Your task to perform on an android device: change the clock display to analog Image 0: 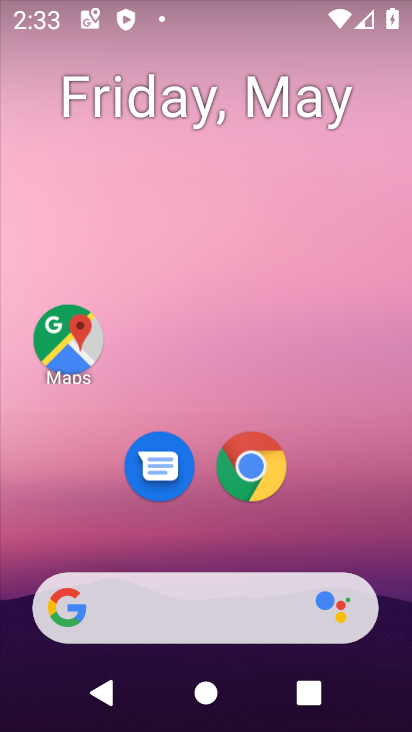
Step 0: drag from (236, 512) to (338, 31)
Your task to perform on an android device: change the clock display to analog Image 1: 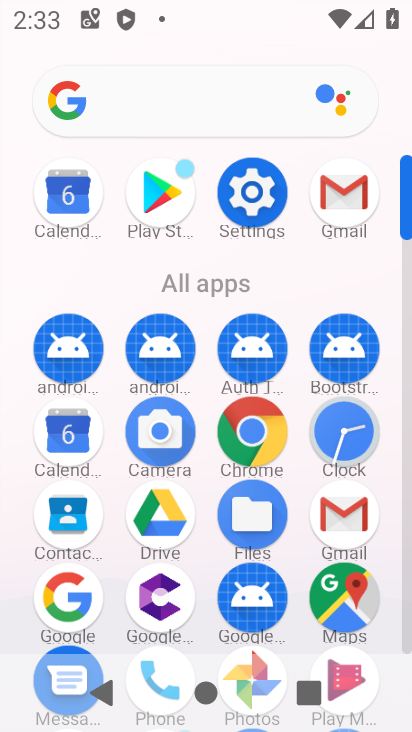
Step 1: click (346, 428)
Your task to perform on an android device: change the clock display to analog Image 2: 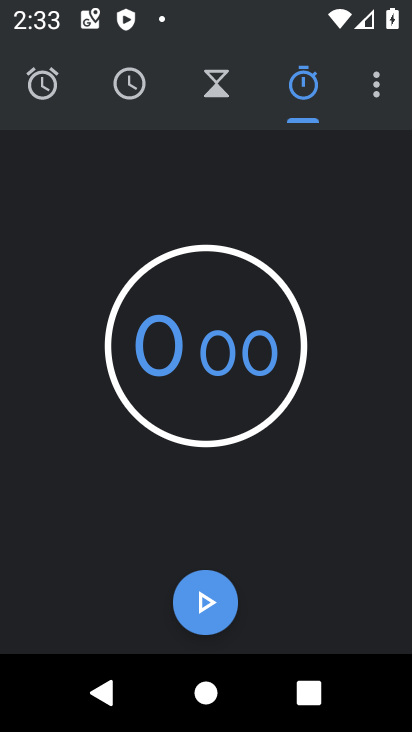
Step 2: click (370, 90)
Your task to perform on an android device: change the clock display to analog Image 3: 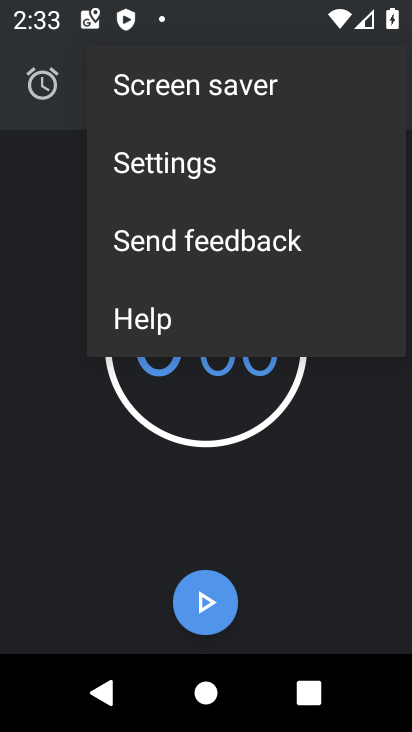
Step 3: click (158, 156)
Your task to perform on an android device: change the clock display to analog Image 4: 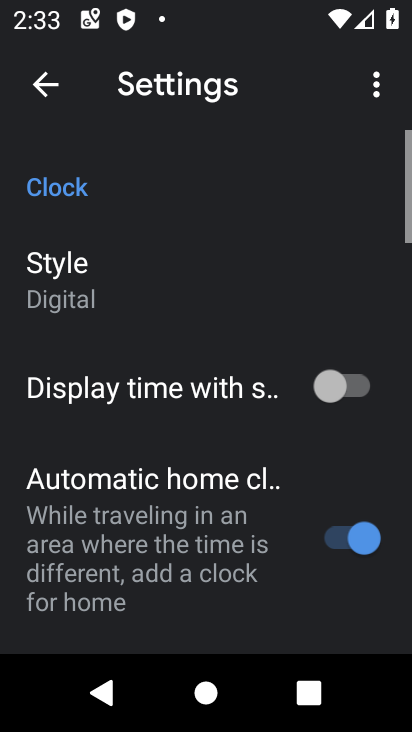
Step 4: click (92, 285)
Your task to perform on an android device: change the clock display to analog Image 5: 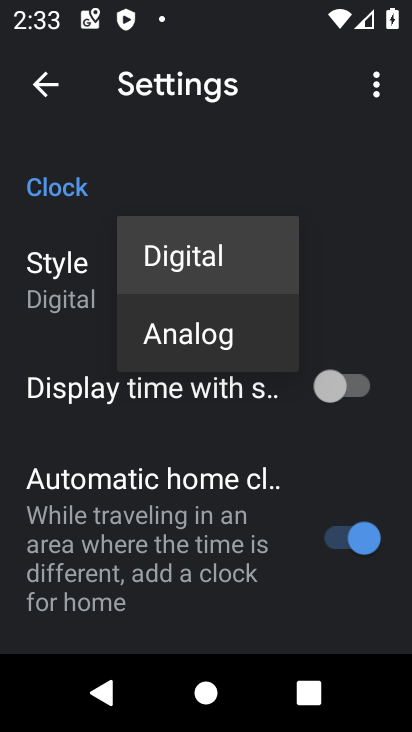
Step 5: click (185, 323)
Your task to perform on an android device: change the clock display to analog Image 6: 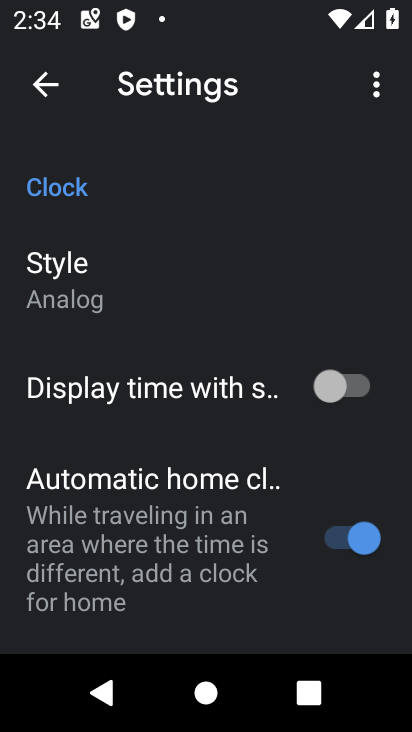
Step 6: task complete